Your task to perform on an android device: change the clock display to analog Image 0: 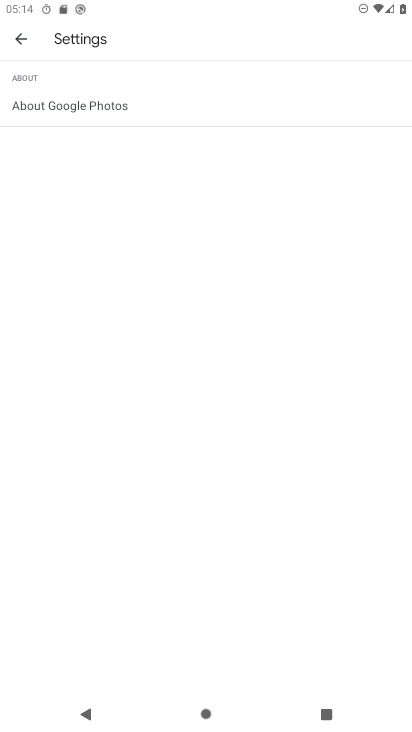
Step 0: press home button
Your task to perform on an android device: change the clock display to analog Image 1: 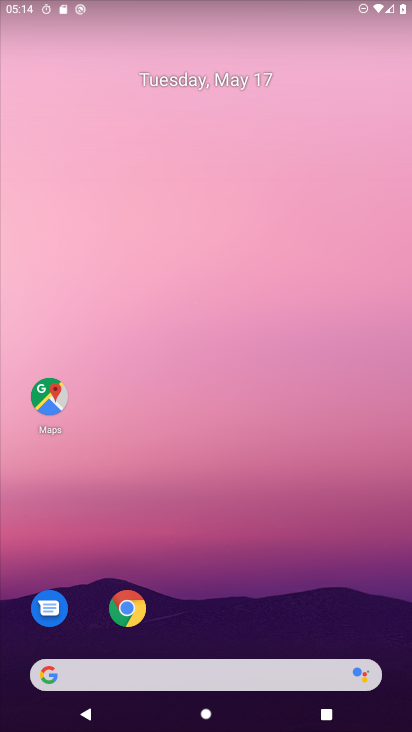
Step 1: drag from (215, 642) to (220, 311)
Your task to perform on an android device: change the clock display to analog Image 2: 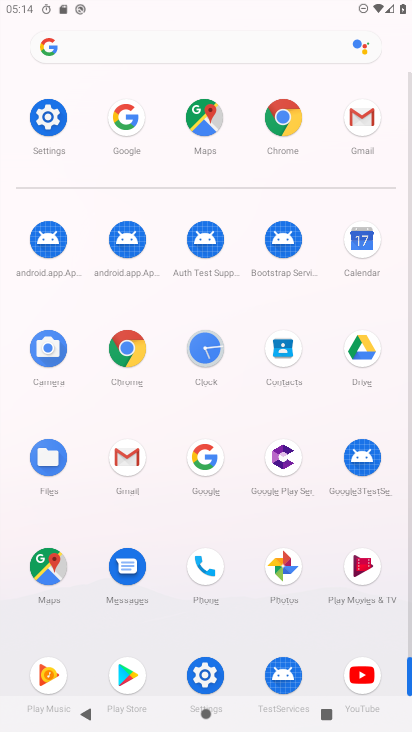
Step 2: click (214, 341)
Your task to perform on an android device: change the clock display to analog Image 3: 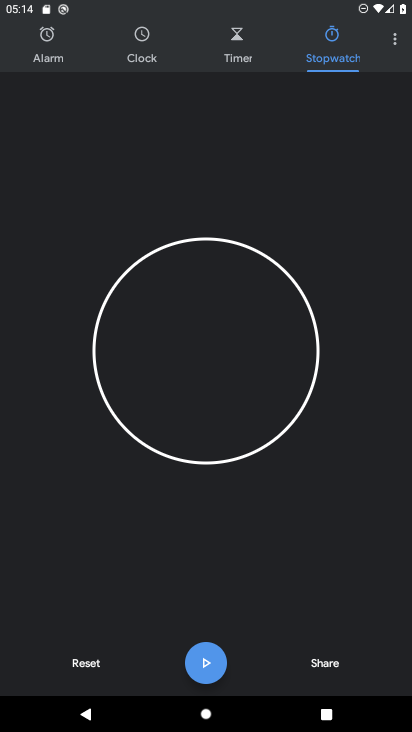
Step 3: click (399, 40)
Your task to perform on an android device: change the clock display to analog Image 4: 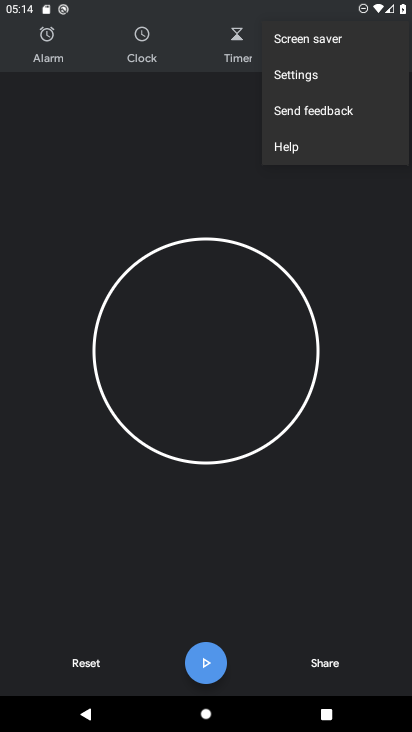
Step 4: click (281, 70)
Your task to perform on an android device: change the clock display to analog Image 5: 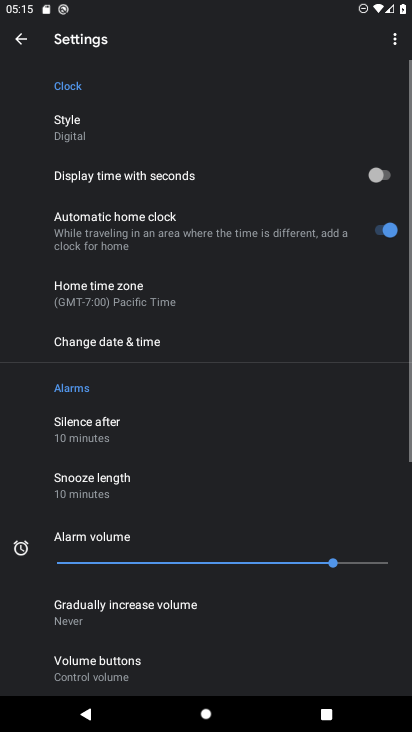
Step 5: click (75, 128)
Your task to perform on an android device: change the clock display to analog Image 6: 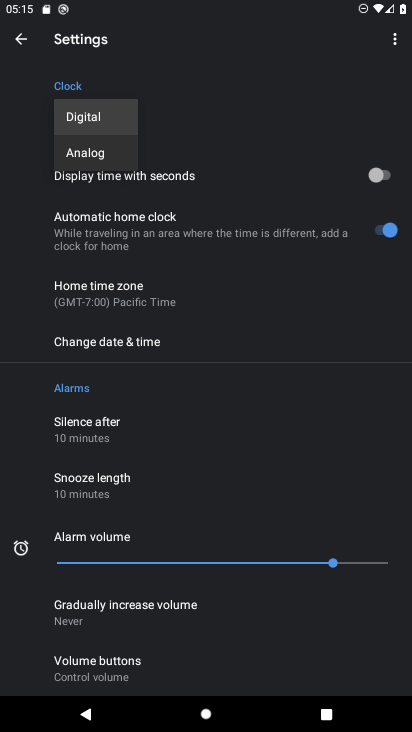
Step 6: click (127, 157)
Your task to perform on an android device: change the clock display to analog Image 7: 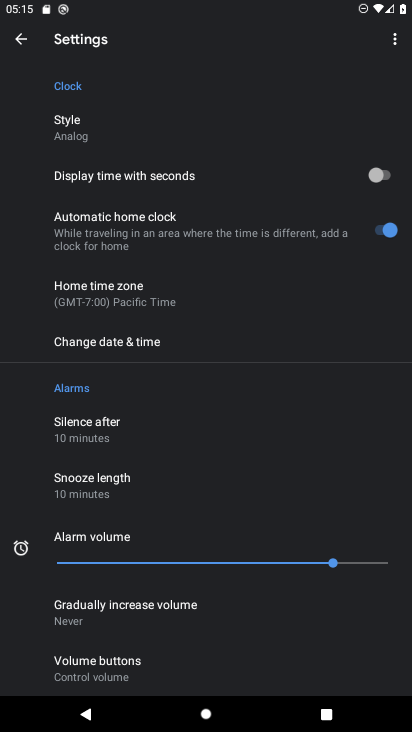
Step 7: task complete